Your task to perform on an android device: check storage Image 0: 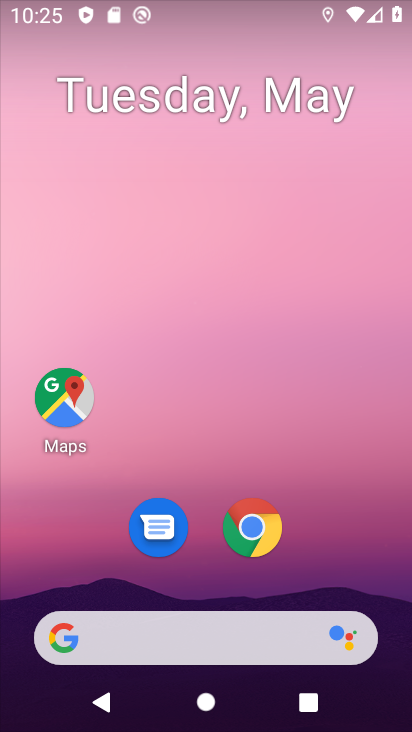
Step 0: drag from (218, 537) to (245, 74)
Your task to perform on an android device: check storage Image 1: 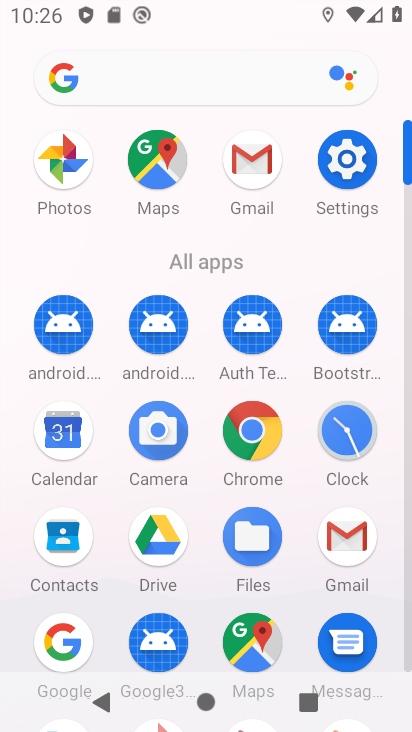
Step 1: click (340, 154)
Your task to perform on an android device: check storage Image 2: 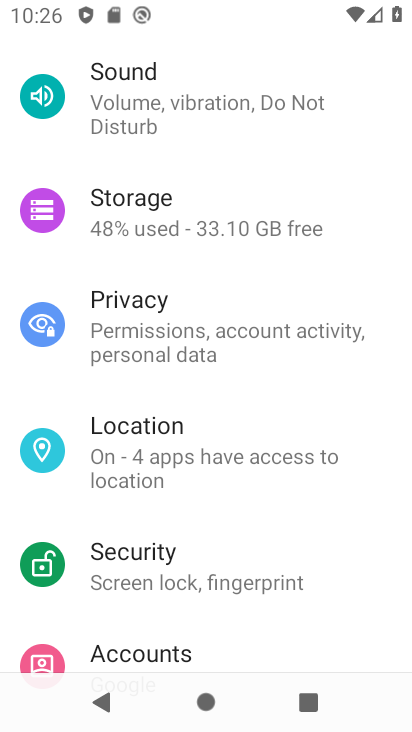
Step 2: drag from (214, 576) to (288, 14)
Your task to perform on an android device: check storage Image 3: 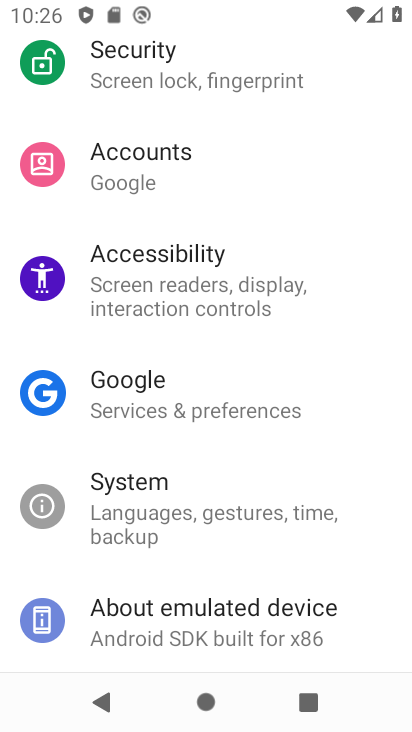
Step 3: drag from (163, 201) to (242, 590)
Your task to perform on an android device: check storage Image 4: 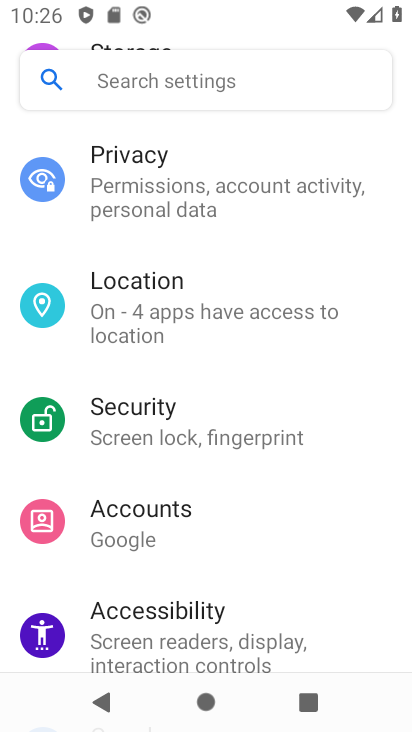
Step 4: drag from (179, 181) to (302, 622)
Your task to perform on an android device: check storage Image 5: 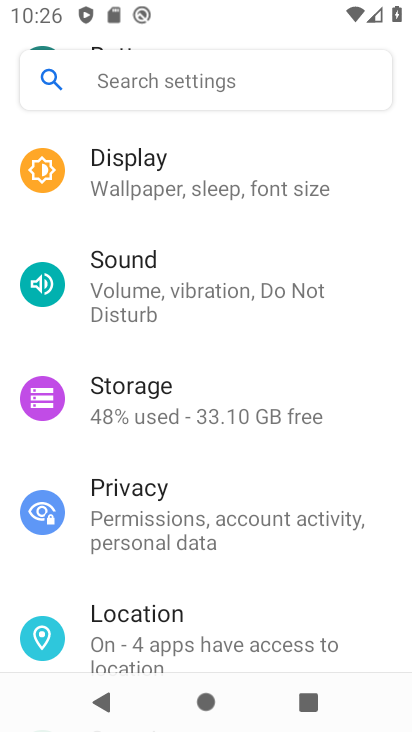
Step 5: click (156, 412)
Your task to perform on an android device: check storage Image 6: 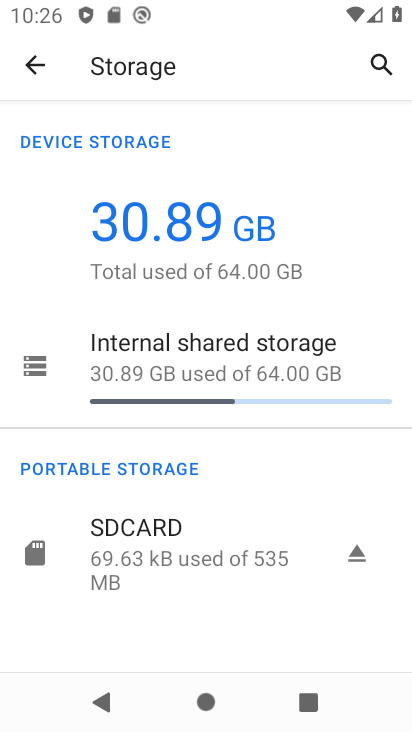
Step 6: task complete